Your task to perform on an android device: change the upload size in google photos Image 0: 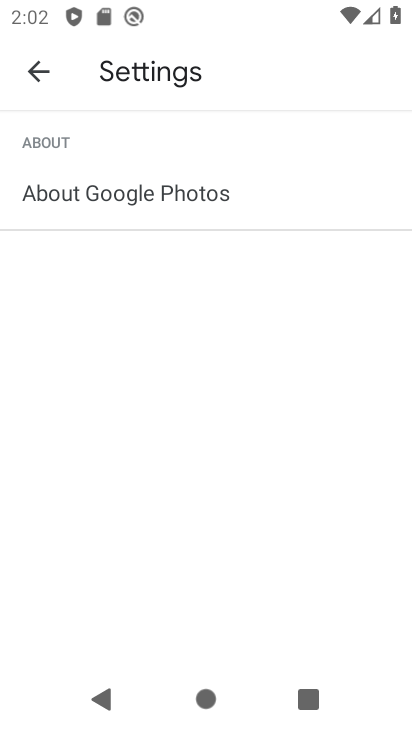
Step 0: press back button
Your task to perform on an android device: change the upload size in google photos Image 1: 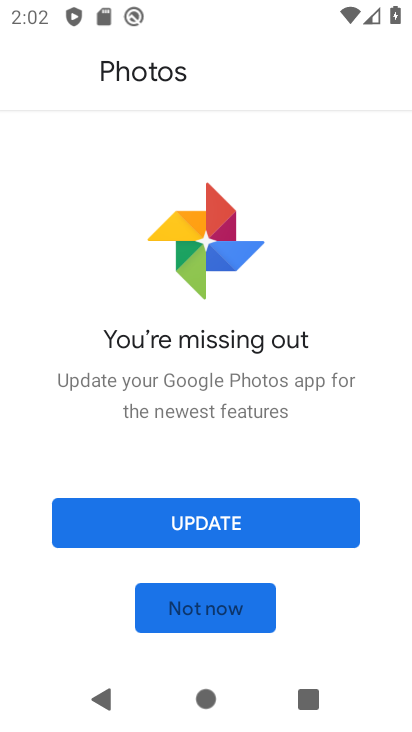
Step 1: press back button
Your task to perform on an android device: change the upload size in google photos Image 2: 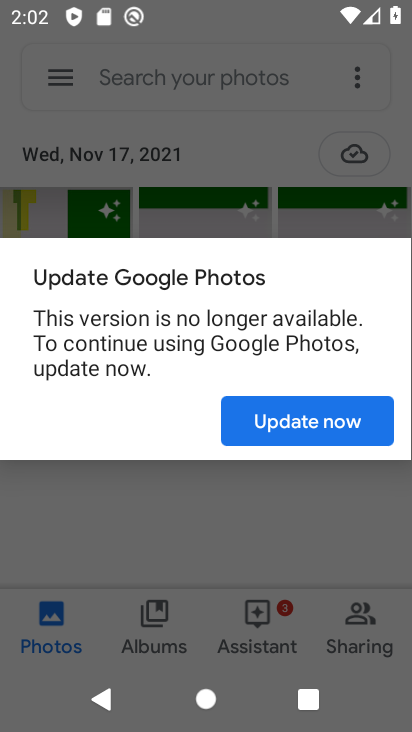
Step 2: click (298, 427)
Your task to perform on an android device: change the upload size in google photos Image 3: 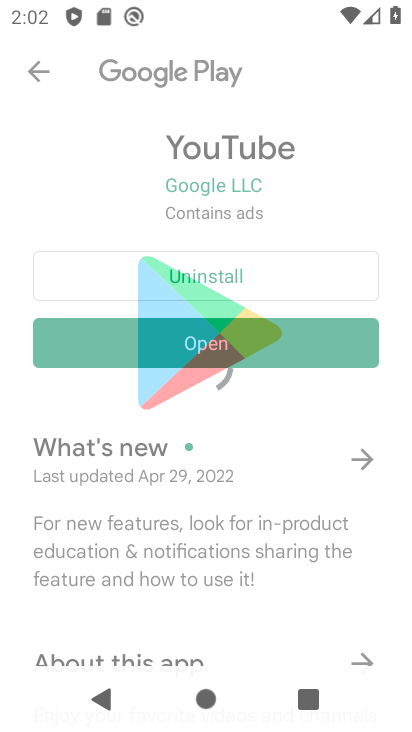
Step 3: press back button
Your task to perform on an android device: change the upload size in google photos Image 4: 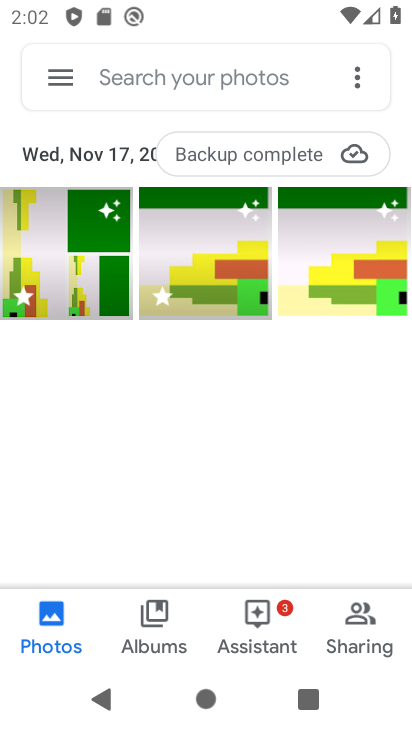
Step 4: click (63, 82)
Your task to perform on an android device: change the upload size in google photos Image 5: 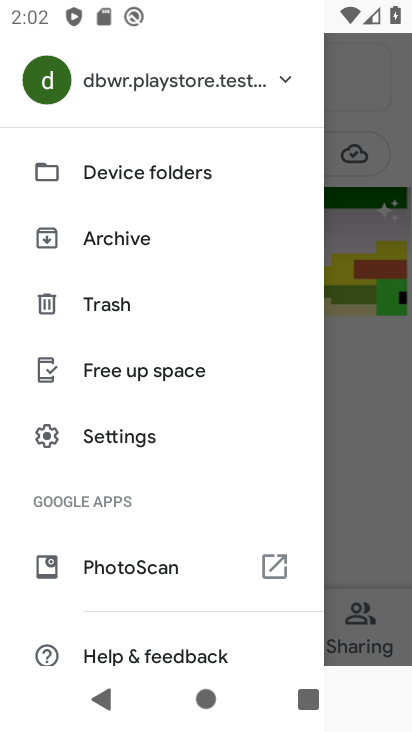
Step 5: click (92, 432)
Your task to perform on an android device: change the upload size in google photos Image 6: 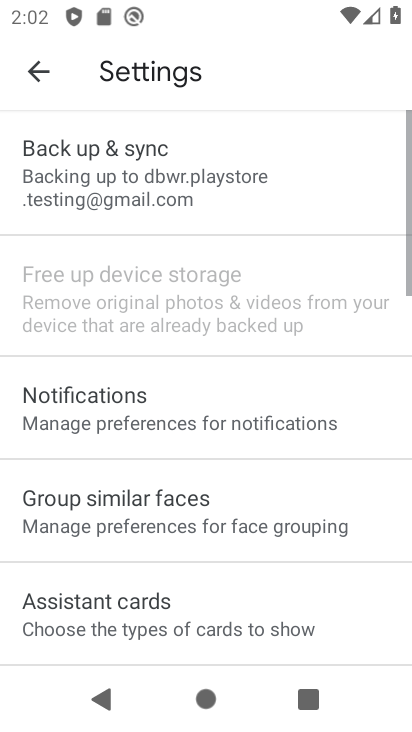
Step 6: click (112, 204)
Your task to perform on an android device: change the upload size in google photos Image 7: 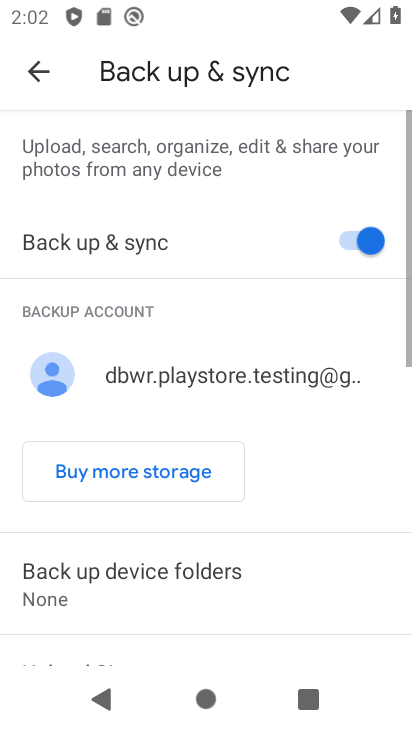
Step 7: drag from (154, 579) to (186, 288)
Your task to perform on an android device: change the upload size in google photos Image 8: 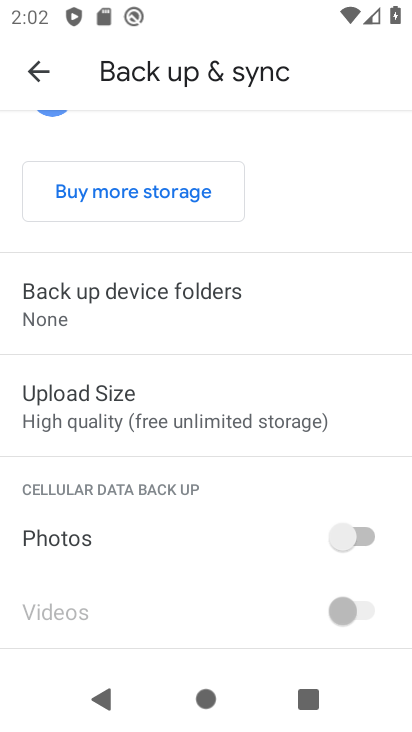
Step 8: click (97, 418)
Your task to perform on an android device: change the upload size in google photos Image 9: 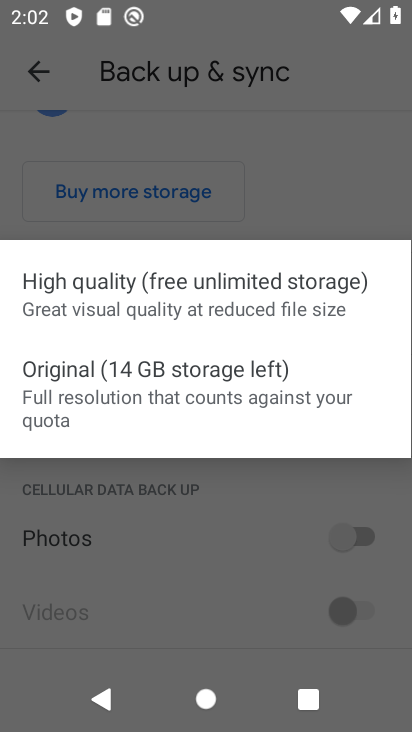
Step 9: click (97, 395)
Your task to perform on an android device: change the upload size in google photos Image 10: 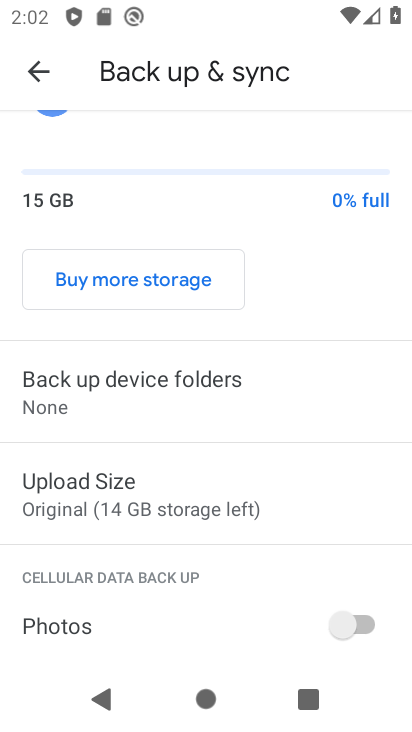
Step 10: task complete